Your task to perform on an android device: toggle data saver in the chrome app Image 0: 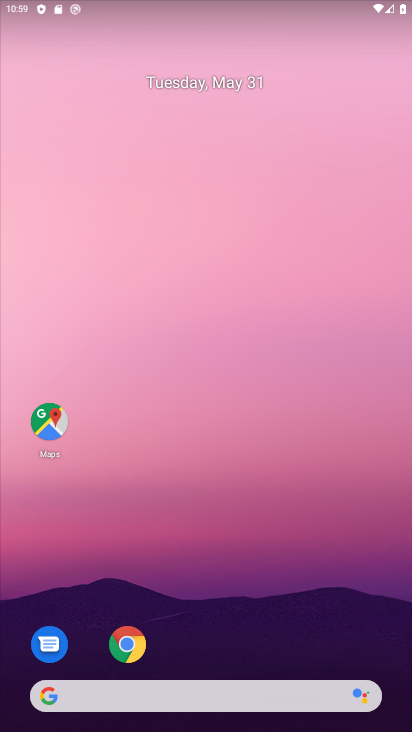
Step 0: press home button
Your task to perform on an android device: toggle data saver in the chrome app Image 1: 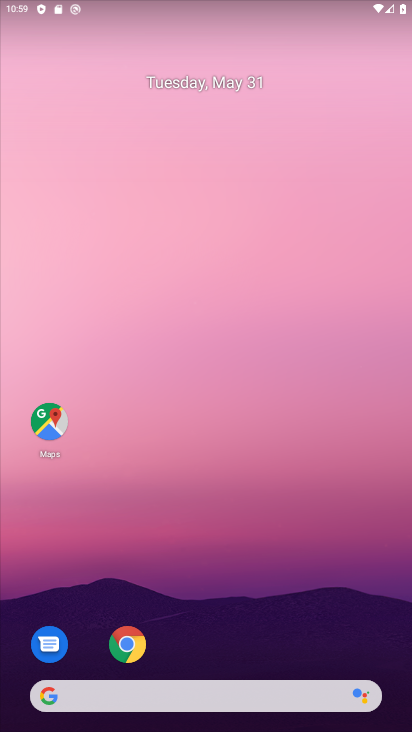
Step 1: click (118, 645)
Your task to perform on an android device: toggle data saver in the chrome app Image 2: 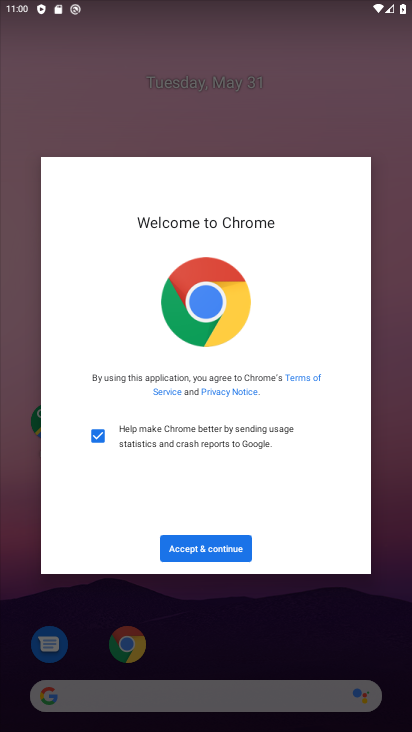
Step 2: click (212, 545)
Your task to perform on an android device: toggle data saver in the chrome app Image 3: 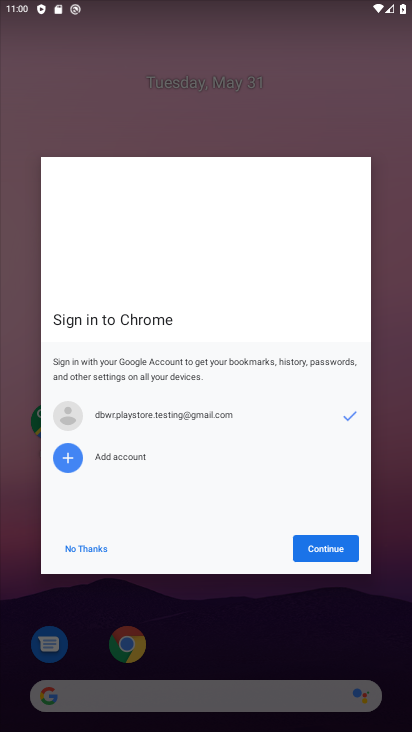
Step 3: click (340, 544)
Your task to perform on an android device: toggle data saver in the chrome app Image 4: 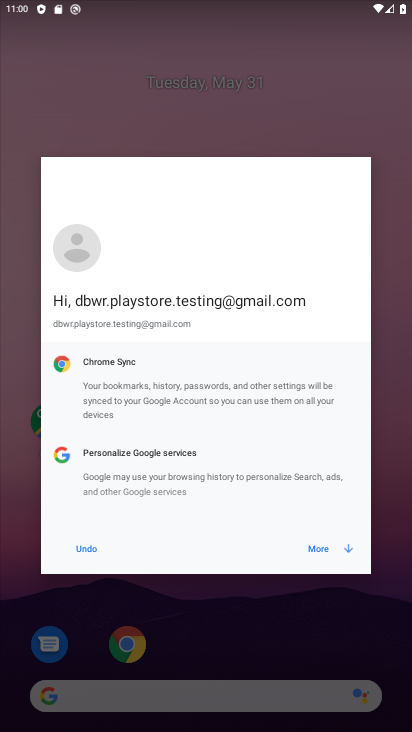
Step 4: click (315, 544)
Your task to perform on an android device: toggle data saver in the chrome app Image 5: 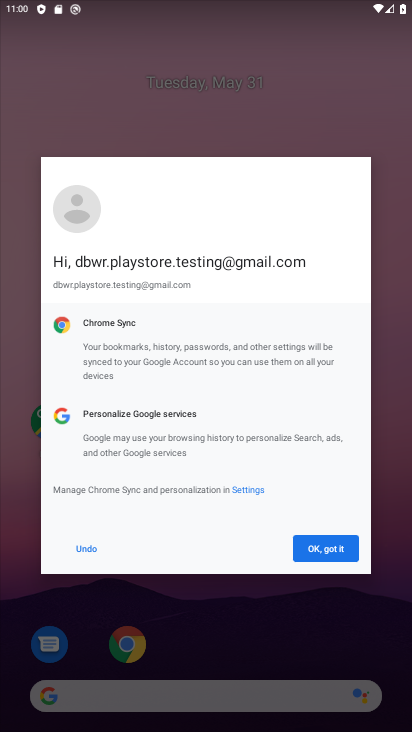
Step 5: click (333, 547)
Your task to perform on an android device: toggle data saver in the chrome app Image 6: 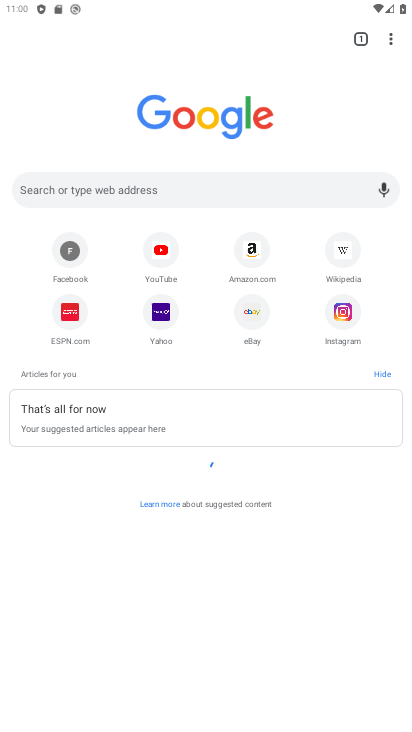
Step 6: click (387, 38)
Your task to perform on an android device: toggle data saver in the chrome app Image 7: 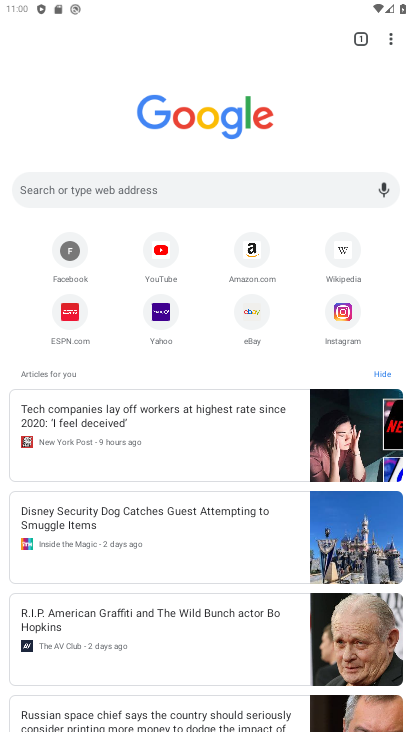
Step 7: drag from (387, 38) to (249, 329)
Your task to perform on an android device: toggle data saver in the chrome app Image 8: 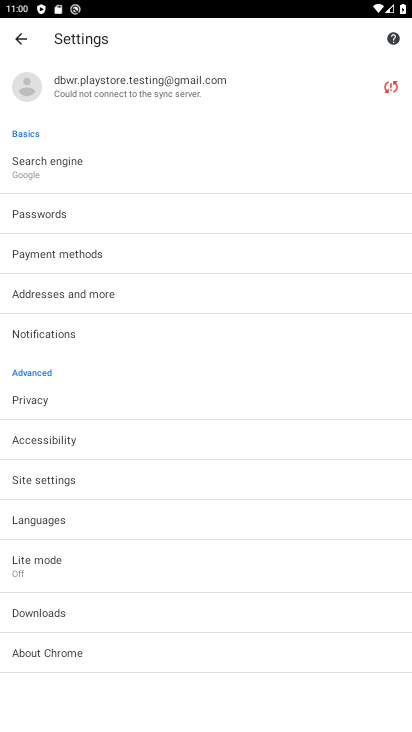
Step 8: click (55, 556)
Your task to perform on an android device: toggle data saver in the chrome app Image 9: 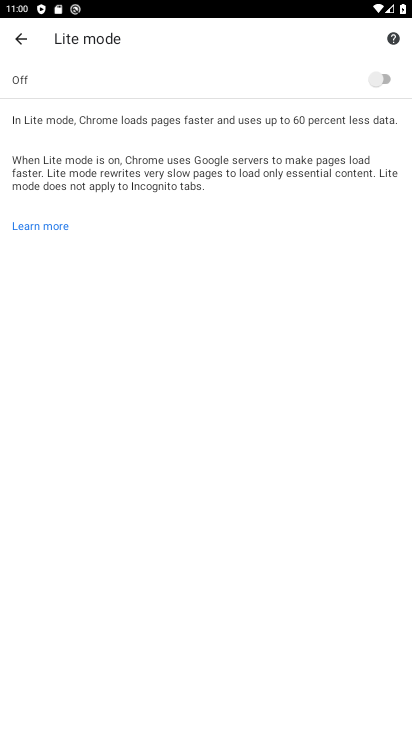
Step 9: click (378, 78)
Your task to perform on an android device: toggle data saver in the chrome app Image 10: 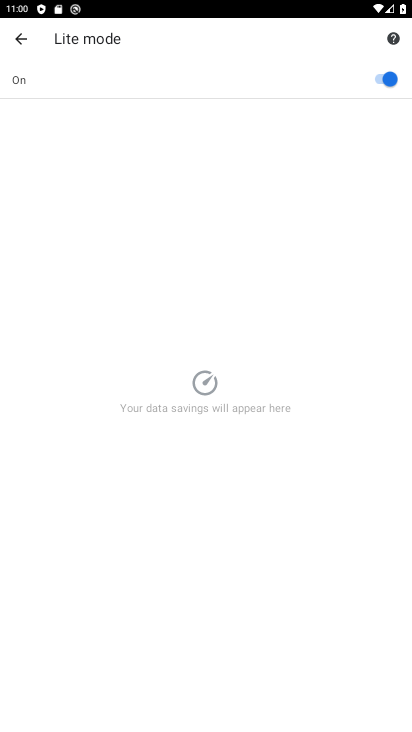
Step 10: task complete